Your task to perform on an android device: toggle sleep mode Image 0: 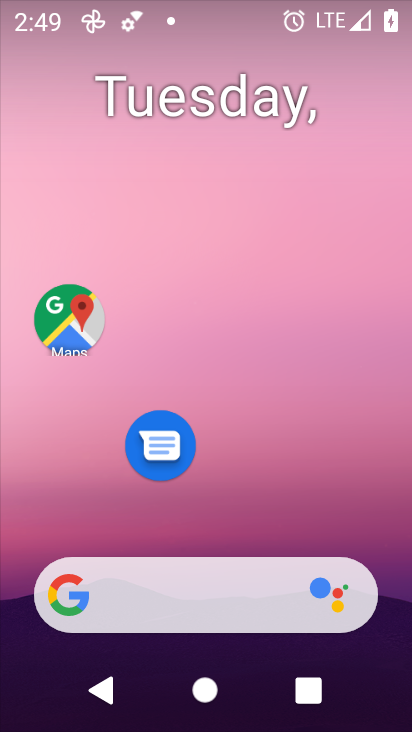
Step 0: drag from (233, 499) to (155, 12)
Your task to perform on an android device: toggle sleep mode Image 1: 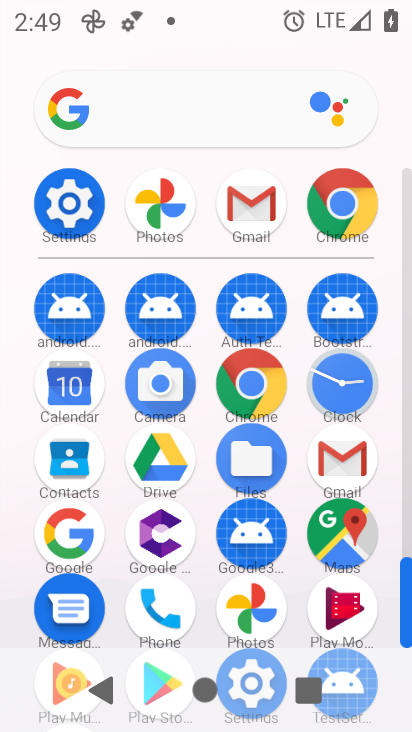
Step 1: click (71, 200)
Your task to perform on an android device: toggle sleep mode Image 2: 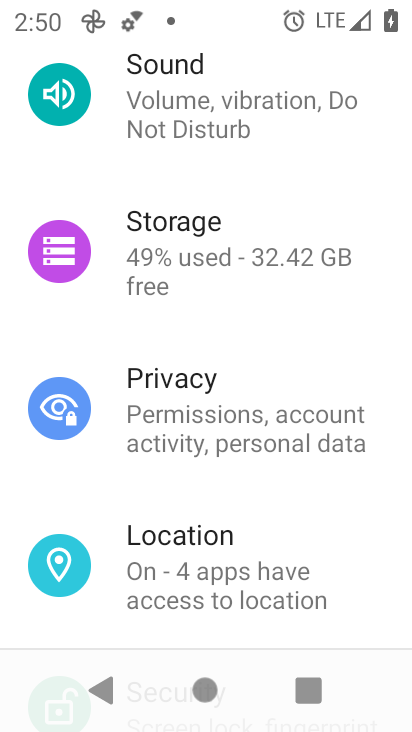
Step 2: drag from (230, 166) to (305, 730)
Your task to perform on an android device: toggle sleep mode Image 3: 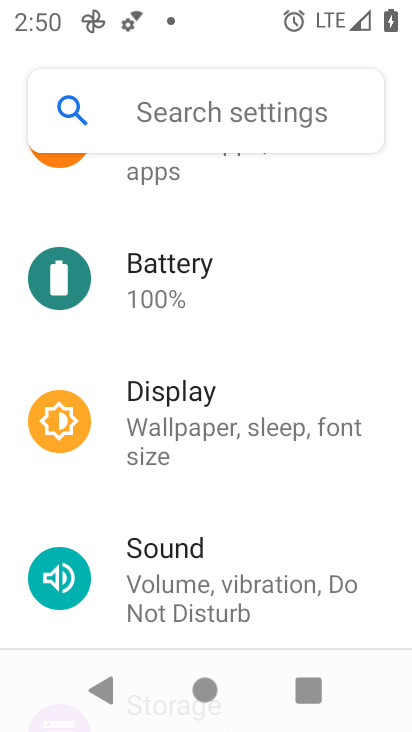
Step 3: click (165, 429)
Your task to perform on an android device: toggle sleep mode Image 4: 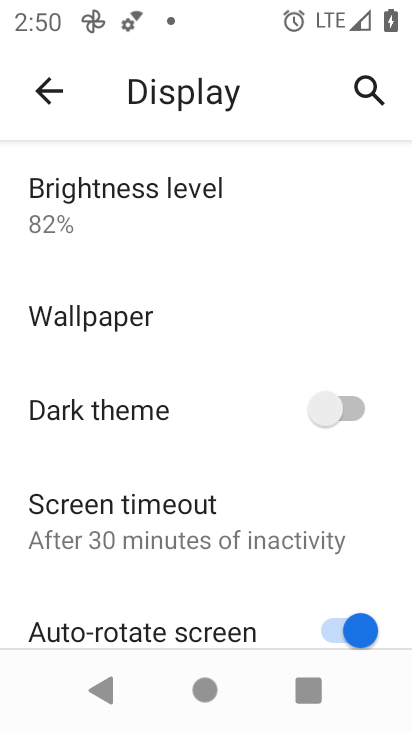
Step 4: task complete